Your task to perform on an android device: Open Google Chrome Image 0: 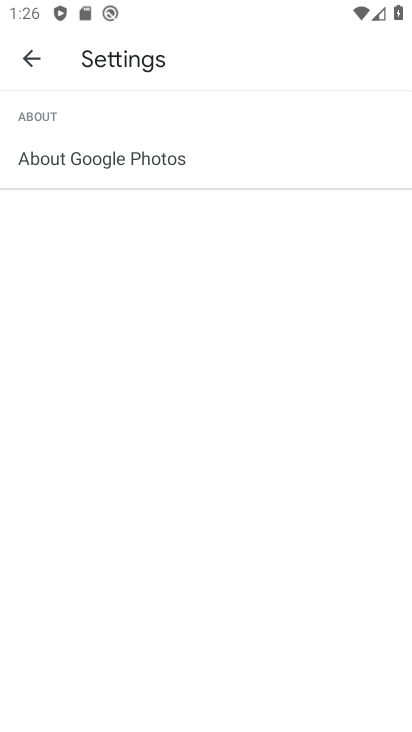
Step 0: press home button
Your task to perform on an android device: Open Google Chrome Image 1: 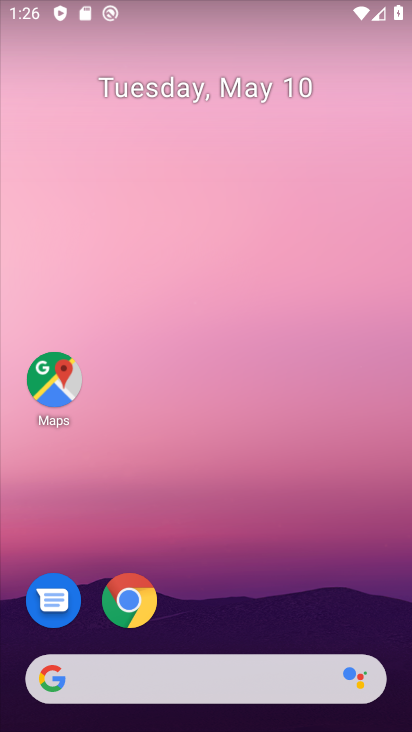
Step 1: click (124, 603)
Your task to perform on an android device: Open Google Chrome Image 2: 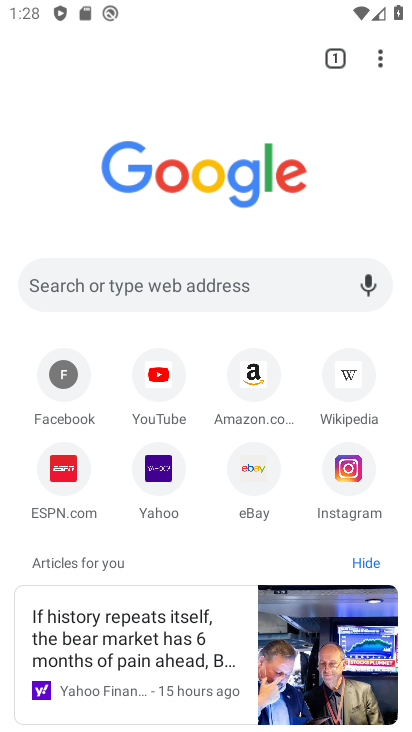
Step 2: task complete